Your task to perform on an android device: clear history in the chrome app Image 0: 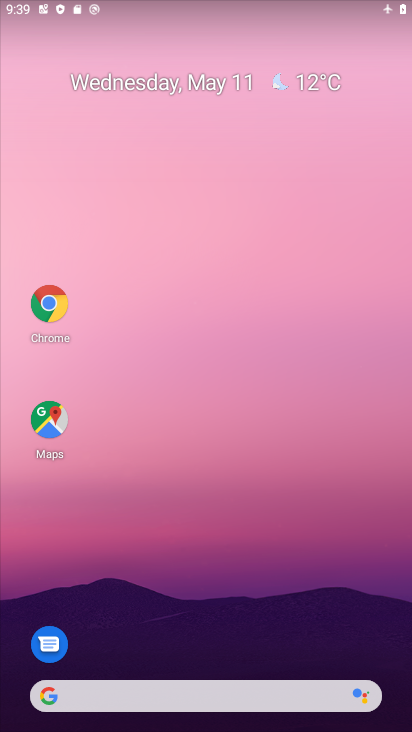
Step 0: click (61, 296)
Your task to perform on an android device: clear history in the chrome app Image 1: 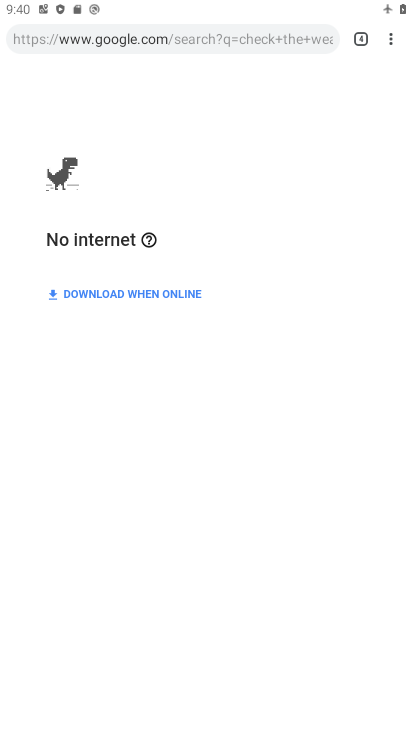
Step 1: click (384, 34)
Your task to perform on an android device: clear history in the chrome app Image 2: 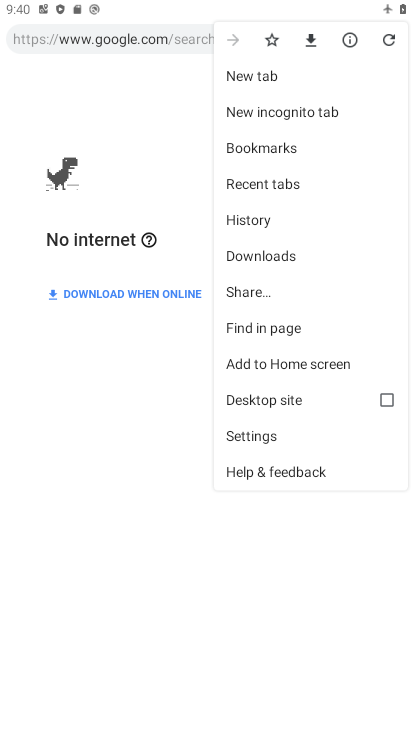
Step 2: click (265, 221)
Your task to perform on an android device: clear history in the chrome app Image 3: 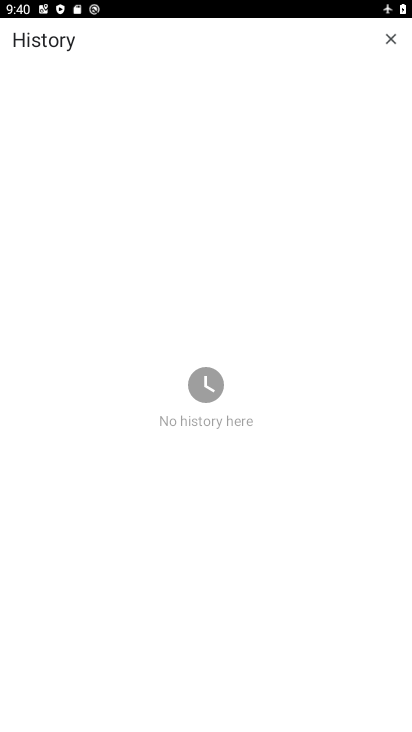
Step 3: task complete